Your task to perform on an android device: turn on notifications settings in the gmail app Image 0: 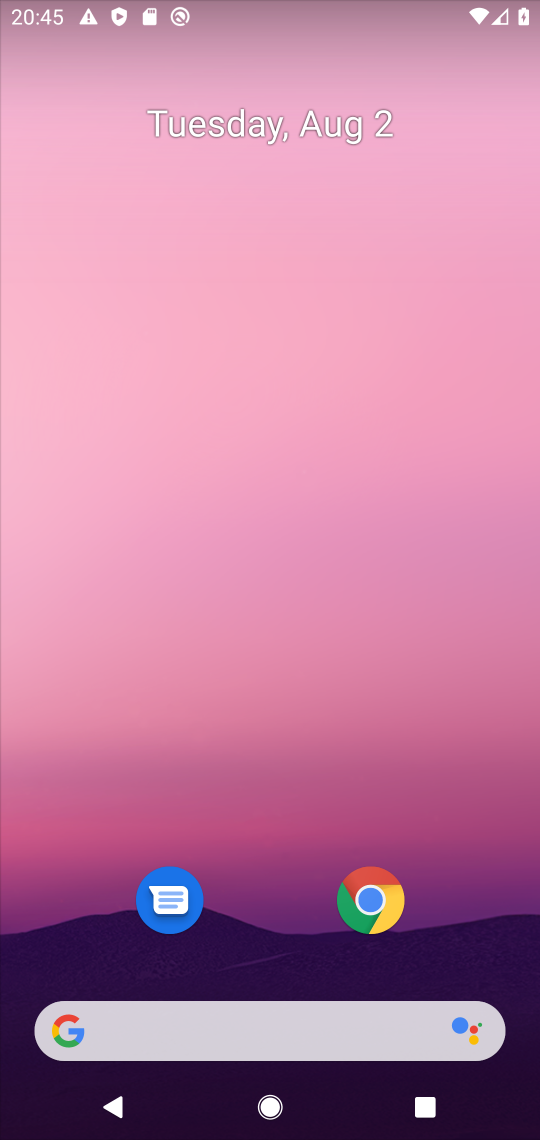
Step 0: drag from (286, 867) to (322, 51)
Your task to perform on an android device: turn on notifications settings in the gmail app Image 1: 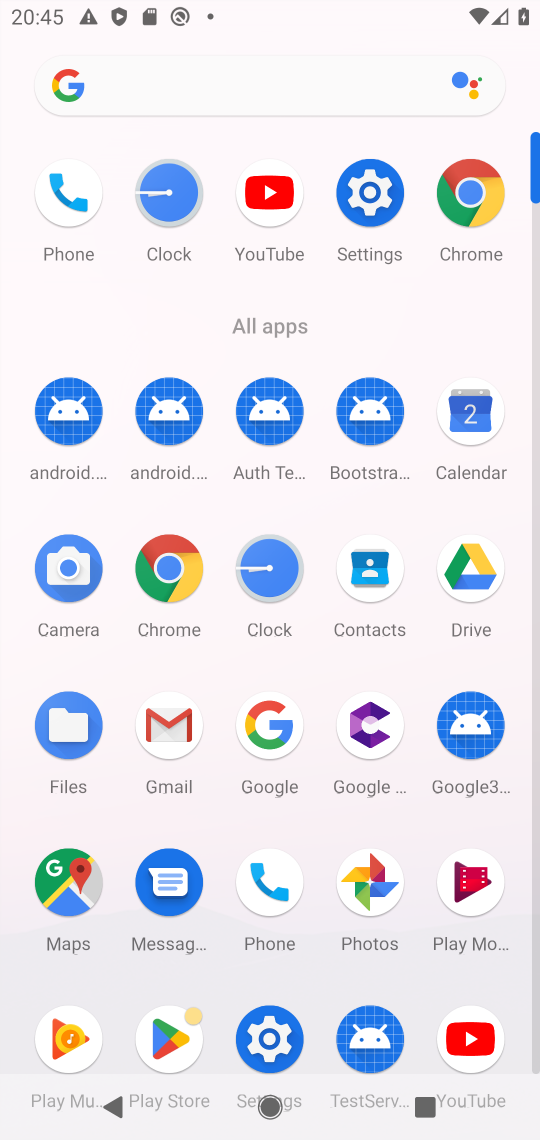
Step 1: click (179, 729)
Your task to perform on an android device: turn on notifications settings in the gmail app Image 2: 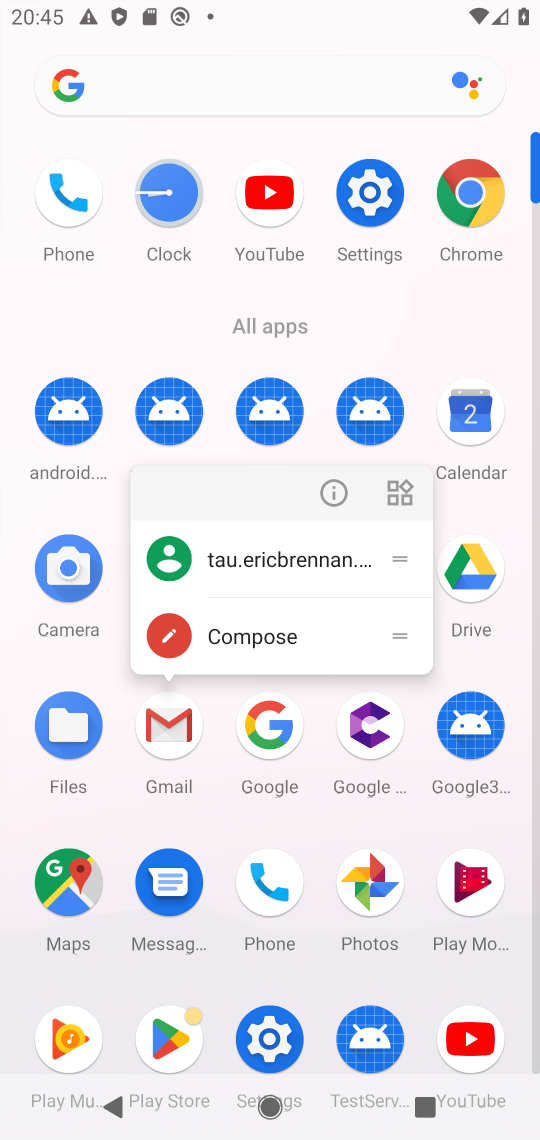
Step 2: click (179, 727)
Your task to perform on an android device: turn on notifications settings in the gmail app Image 3: 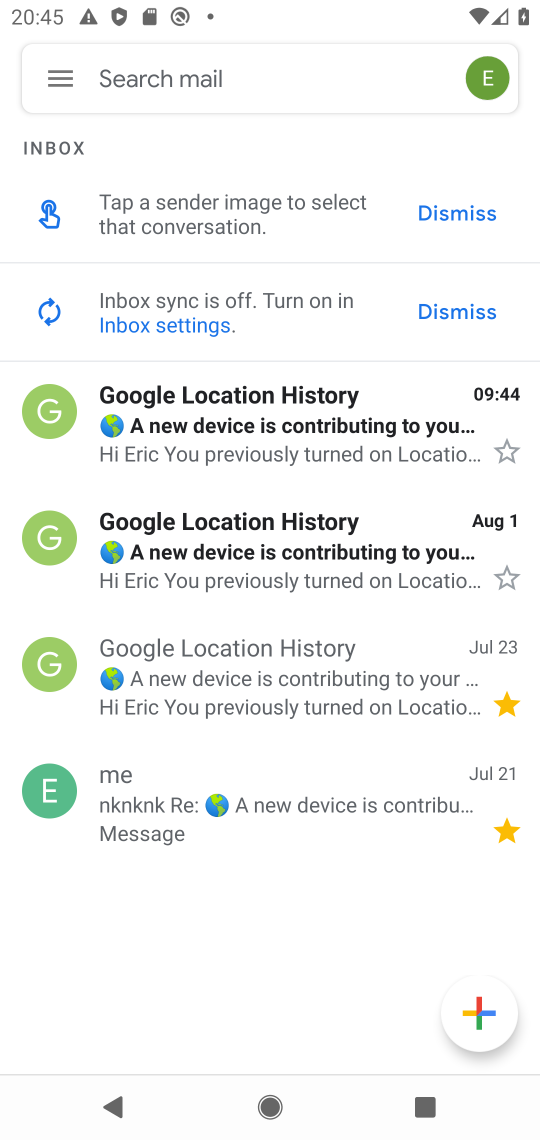
Step 3: click (60, 80)
Your task to perform on an android device: turn on notifications settings in the gmail app Image 4: 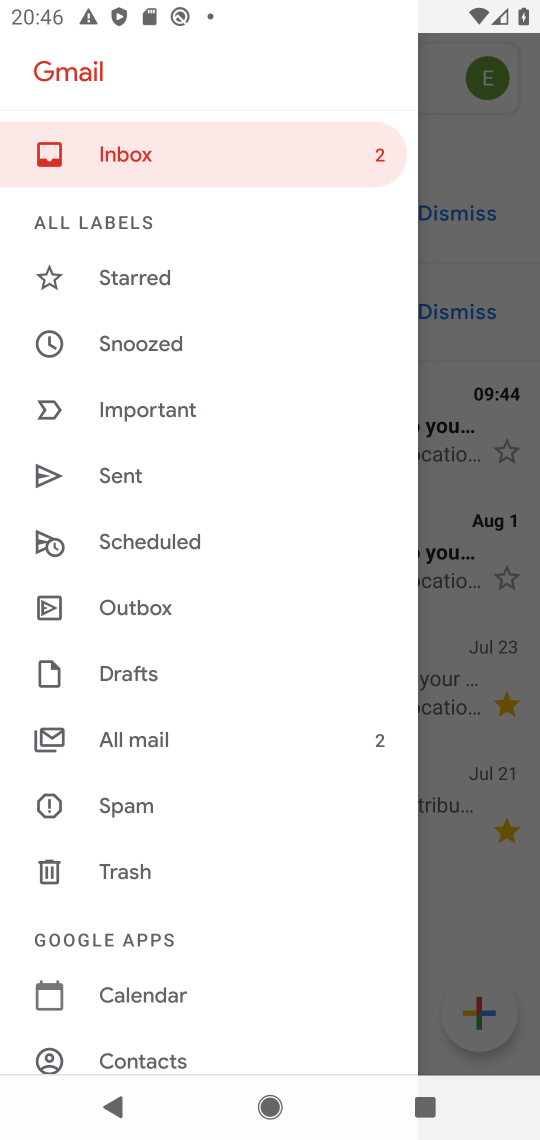
Step 4: drag from (226, 898) to (250, 466)
Your task to perform on an android device: turn on notifications settings in the gmail app Image 5: 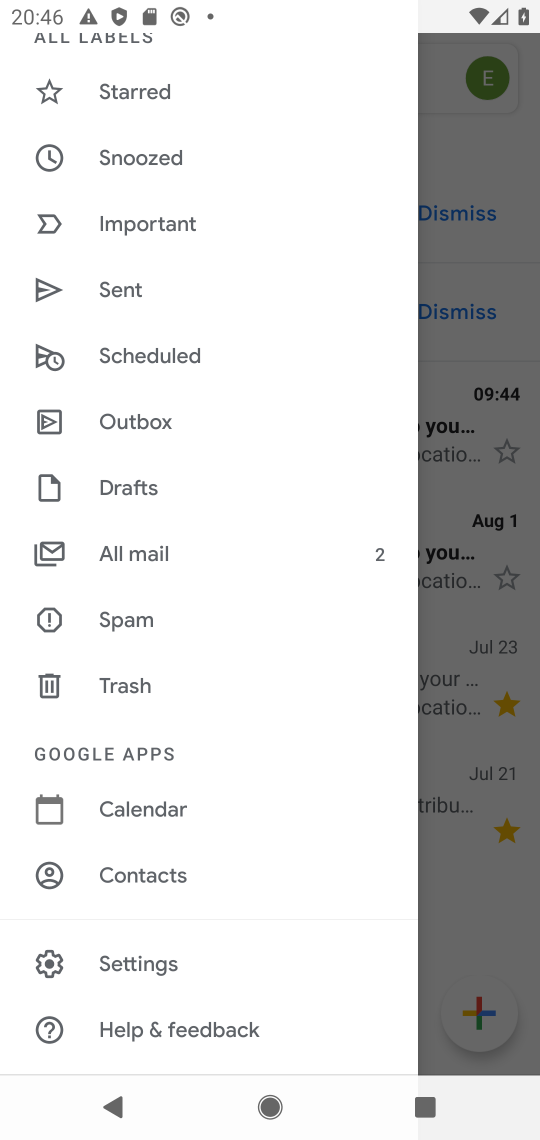
Step 5: click (133, 961)
Your task to perform on an android device: turn on notifications settings in the gmail app Image 6: 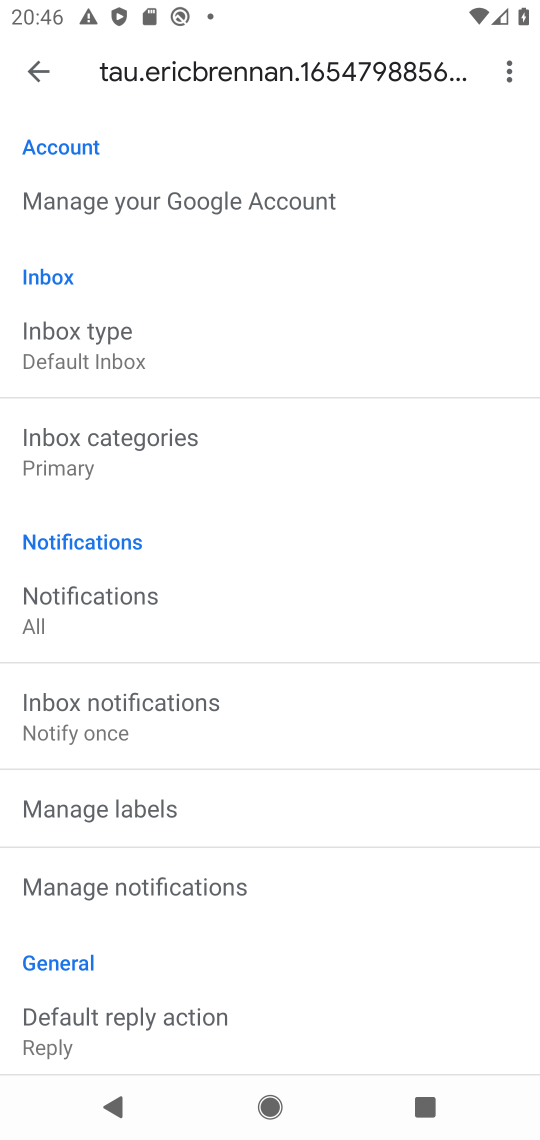
Step 6: click (219, 885)
Your task to perform on an android device: turn on notifications settings in the gmail app Image 7: 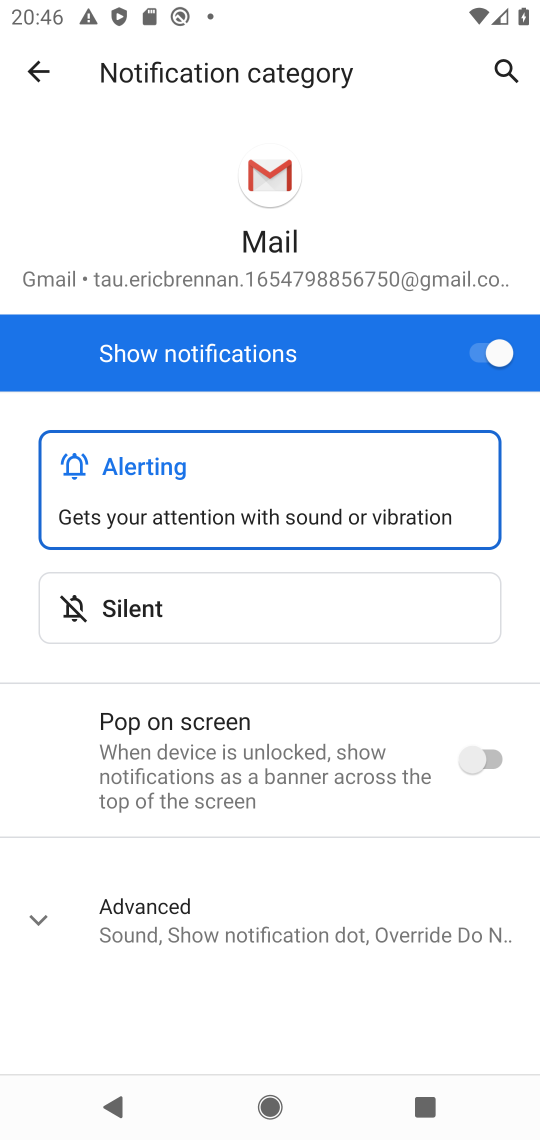
Step 7: task complete